Your task to perform on an android device: Go to display settings Image 0: 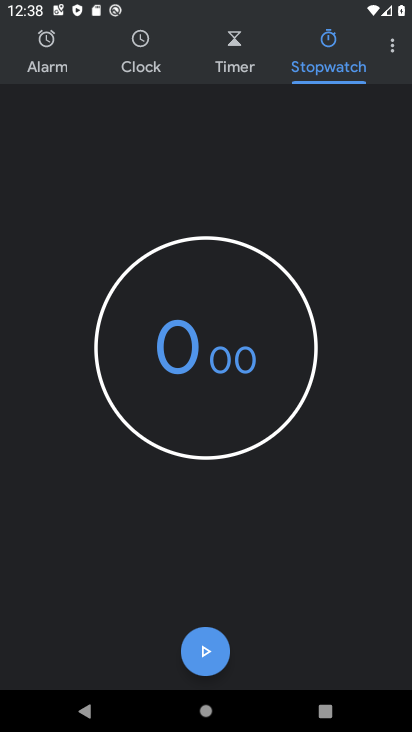
Step 0: press home button
Your task to perform on an android device: Go to display settings Image 1: 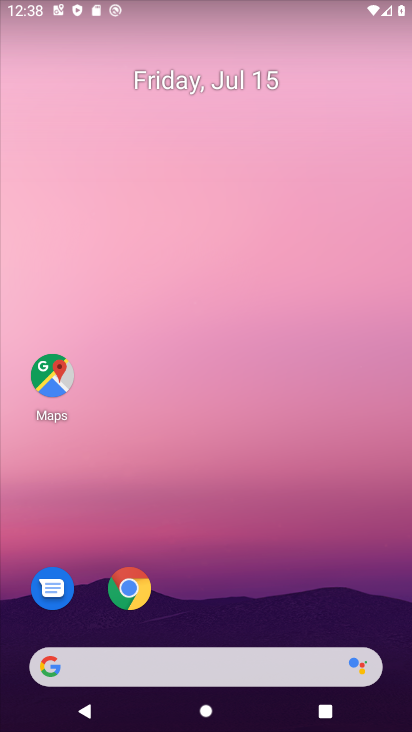
Step 1: drag from (155, 718) to (172, 156)
Your task to perform on an android device: Go to display settings Image 2: 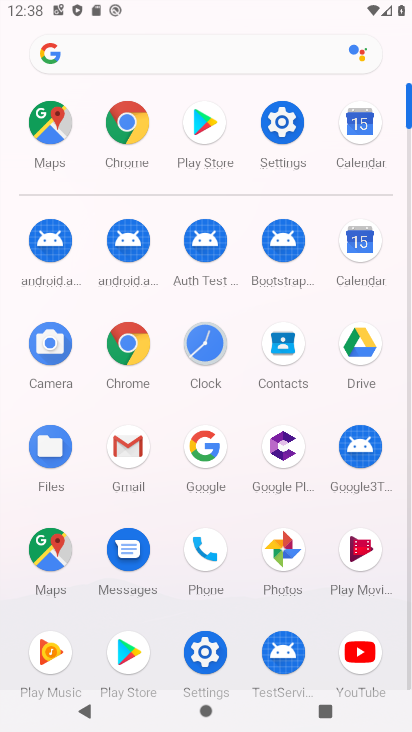
Step 2: click (277, 124)
Your task to perform on an android device: Go to display settings Image 3: 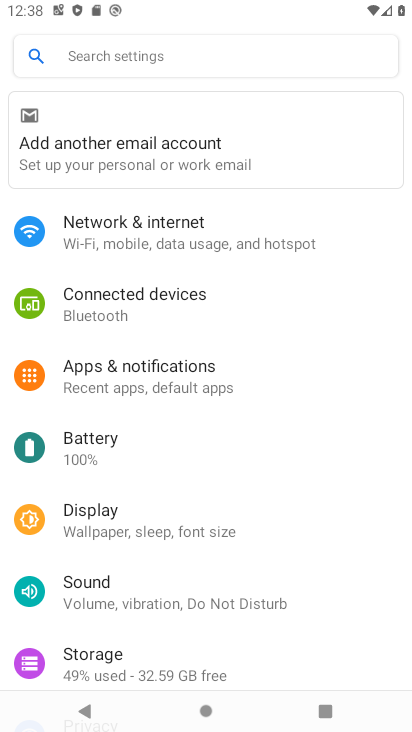
Step 3: click (111, 527)
Your task to perform on an android device: Go to display settings Image 4: 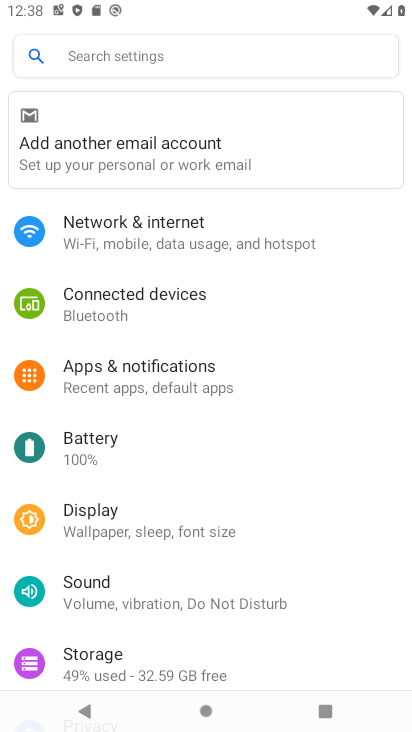
Step 4: click (111, 527)
Your task to perform on an android device: Go to display settings Image 5: 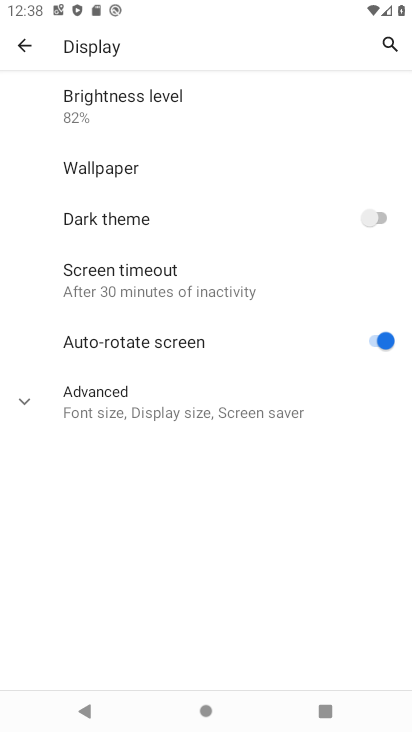
Step 5: task complete